Your task to perform on an android device: check battery use Image 0: 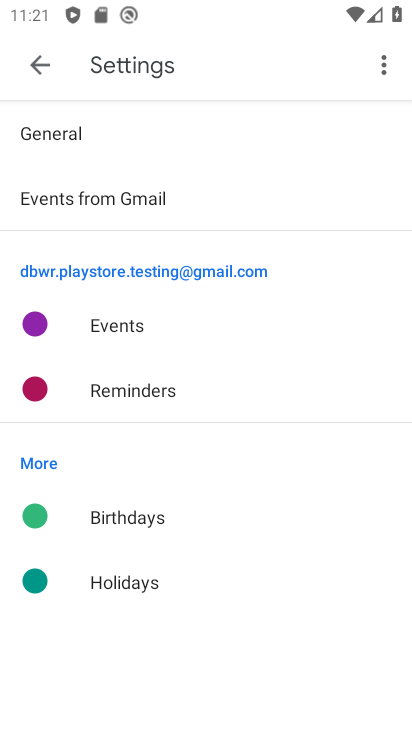
Step 0: drag from (213, 10) to (236, 644)
Your task to perform on an android device: check battery use Image 1: 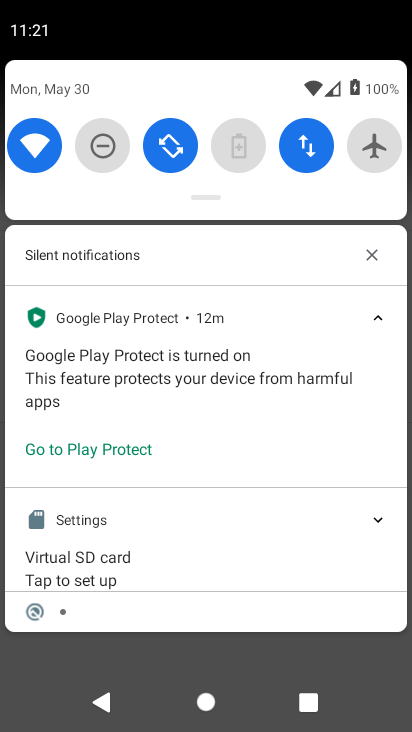
Step 1: click (240, 146)
Your task to perform on an android device: check battery use Image 2: 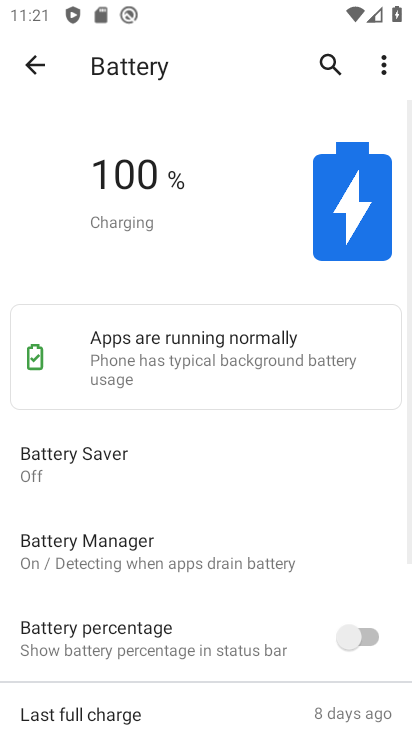
Step 2: task complete